Your task to perform on an android device: Go to Android settings Image 0: 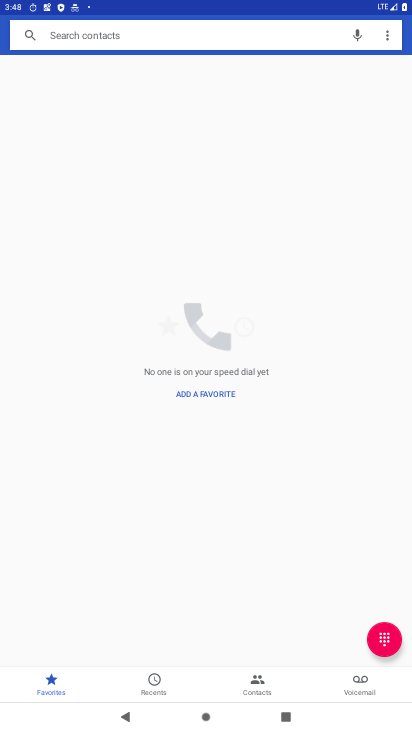
Step 0: press home button
Your task to perform on an android device: Go to Android settings Image 1: 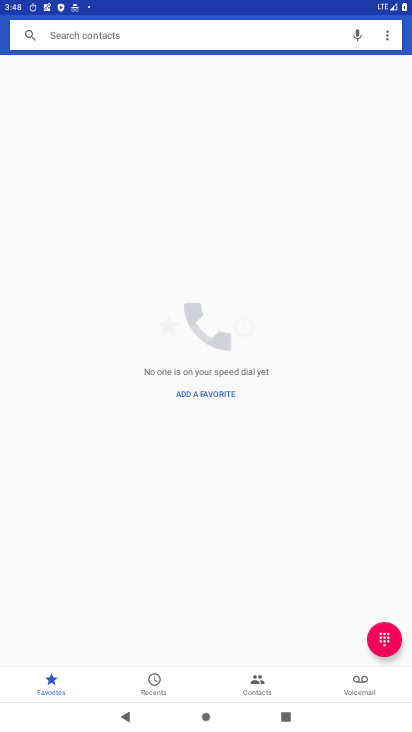
Step 1: press home button
Your task to perform on an android device: Go to Android settings Image 2: 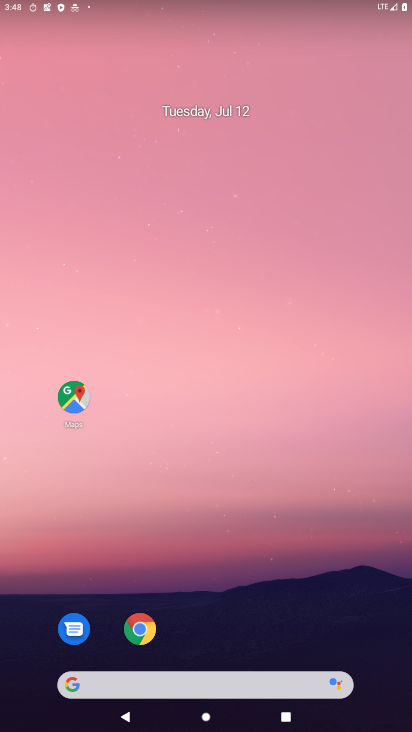
Step 2: drag from (244, 608) to (306, 53)
Your task to perform on an android device: Go to Android settings Image 3: 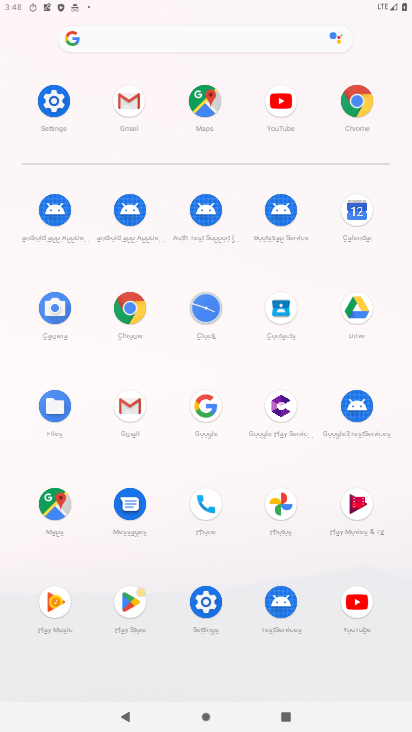
Step 3: click (53, 97)
Your task to perform on an android device: Go to Android settings Image 4: 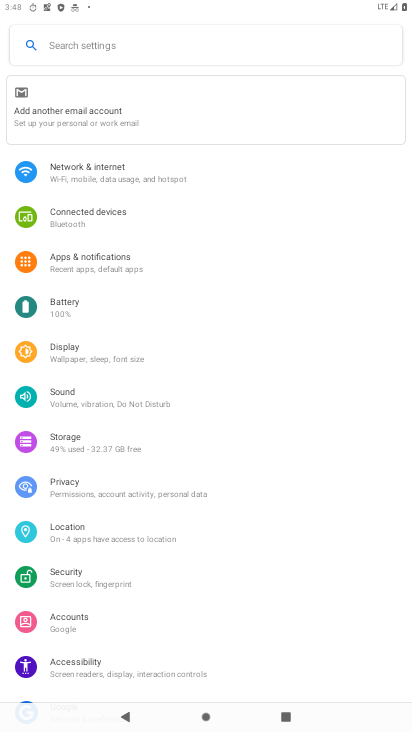
Step 4: drag from (148, 603) to (200, 198)
Your task to perform on an android device: Go to Android settings Image 5: 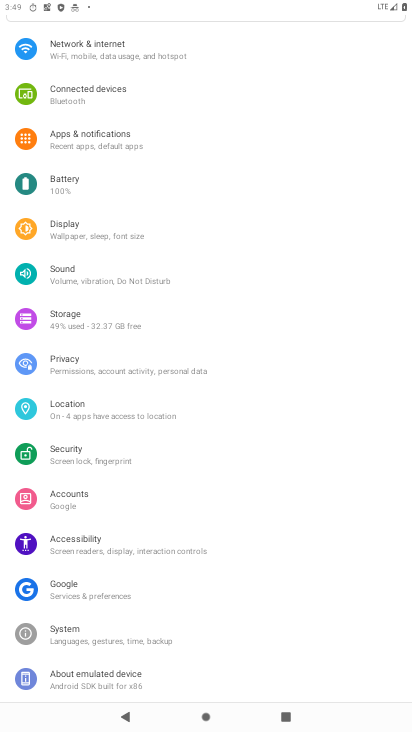
Step 5: click (100, 672)
Your task to perform on an android device: Go to Android settings Image 6: 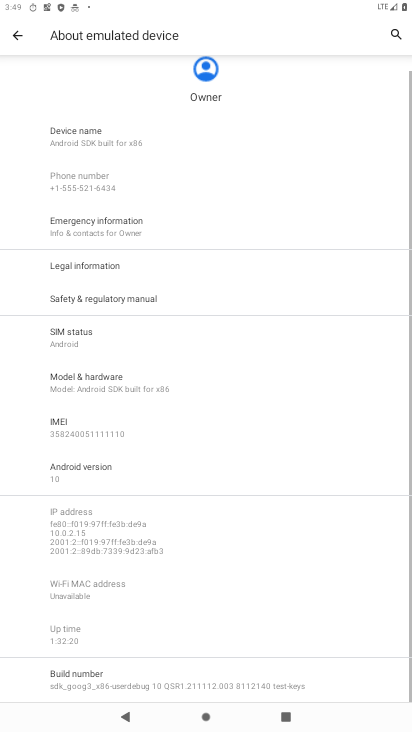
Step 6: drag from (186, 673) to (228, 350)
Your task to perform on an android device: Go to Android settings Image 7: 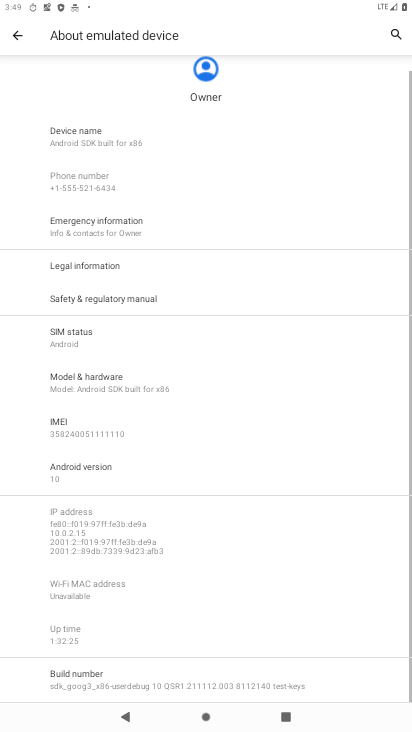
Step 7: click (77, 466)
Your task to perform on an android device: Go to Android settings Image 8: 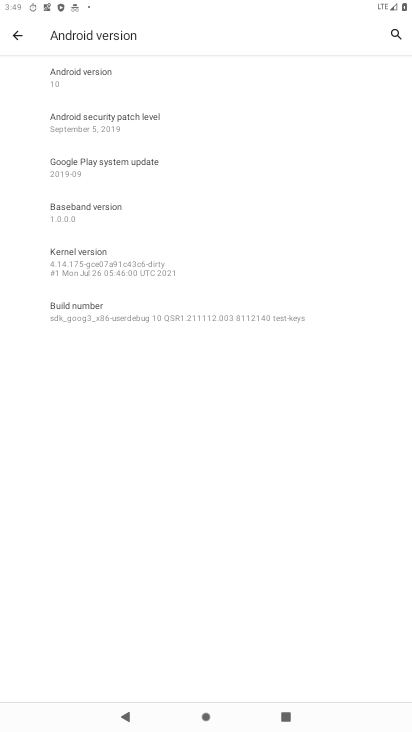
Step 8: click (84, 81)
Your task to perform on an android device: Go to Android settings Image 9: 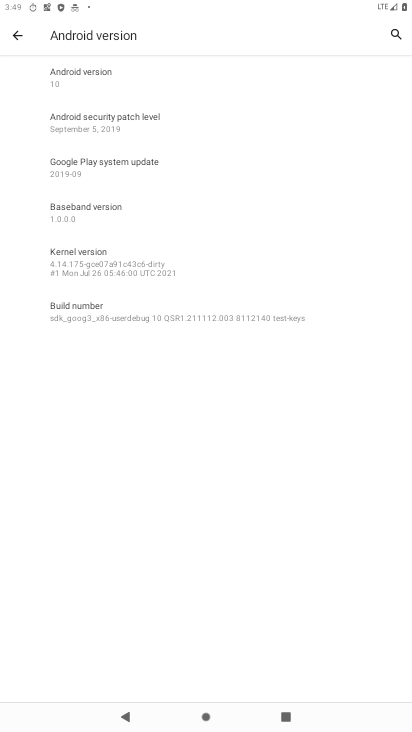
Step 9: task complete